Your task to perform on an android device: Go to accessibility settings Image 0: 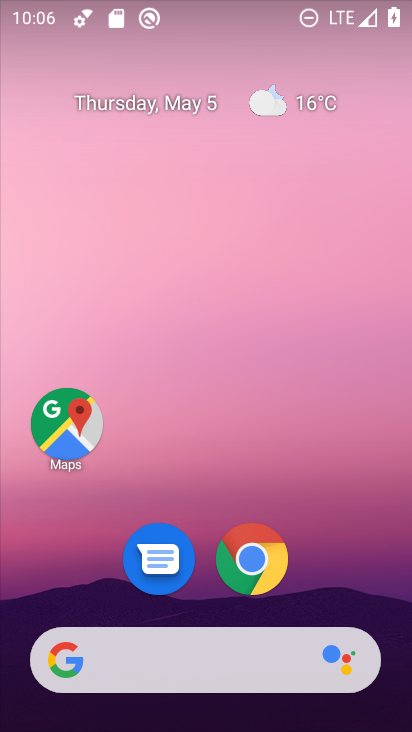
Step 0: drag from (391, 643) to (355, 212)
Your task to perform on an android device: Go to accessibility settings Image 1: 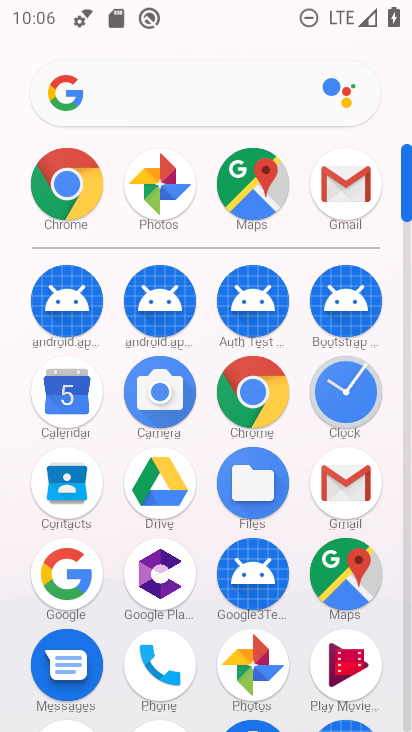
Step 1: drag from (205, 682) to (233, 141)
Your task to perform on an android device: Go to accessibility settings Image 2: 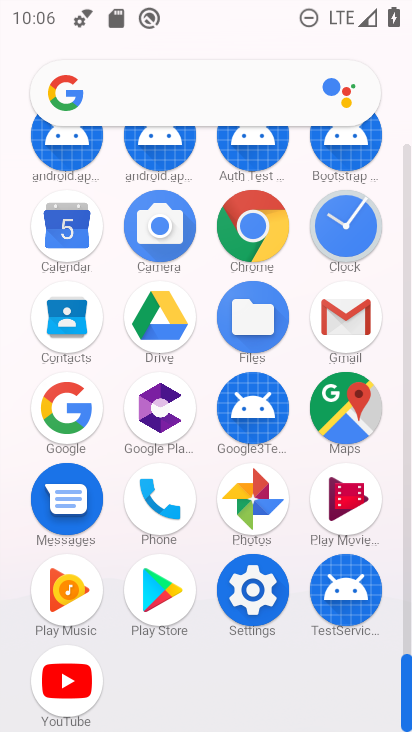
Step 2: click (253, 590)
Your task to perform on an android device: Go to accessibility settings Image 3: 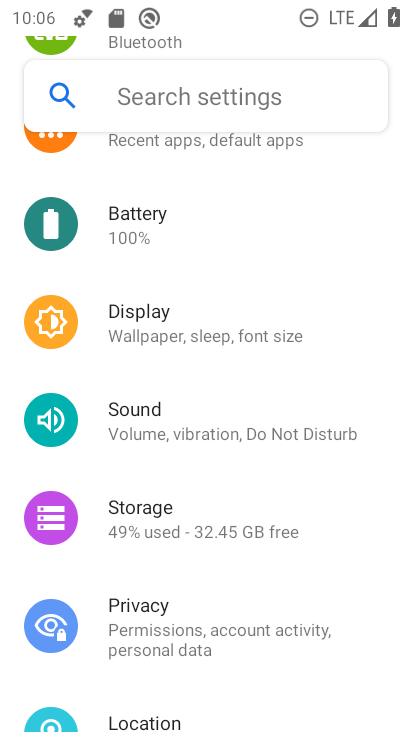
Step 3: drag from (180, 647) to (229, 133)
Your task to perform on an android device: Go to accessibility settings Image 4: 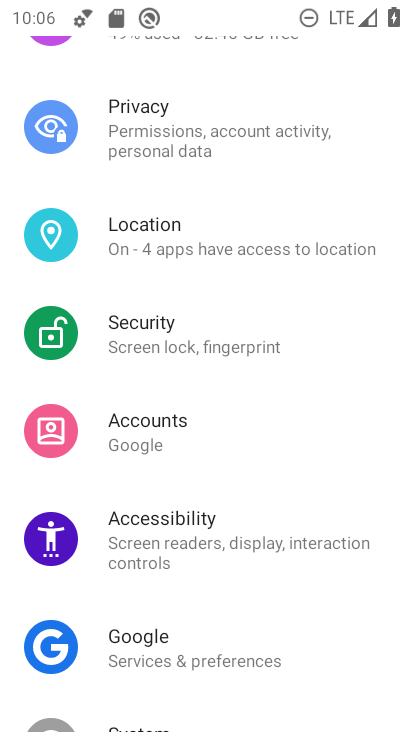
Step 4: click (176, 513)
Your task to perform on an android device: Go to accessibility settings Image 5: 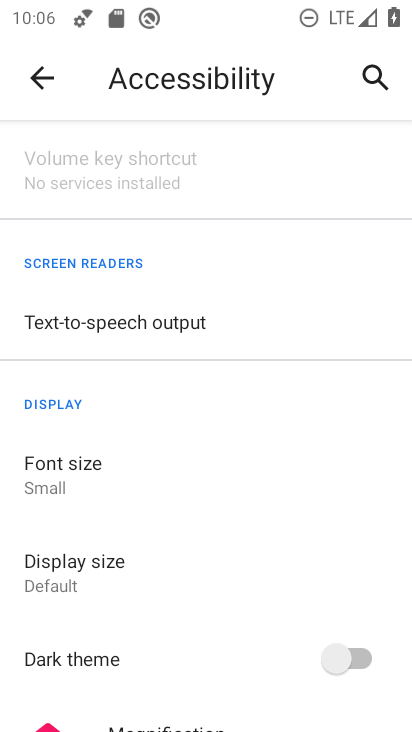
Step 5: task complete